Your task to perform on an android device: change the upload size in google photos Image 0: 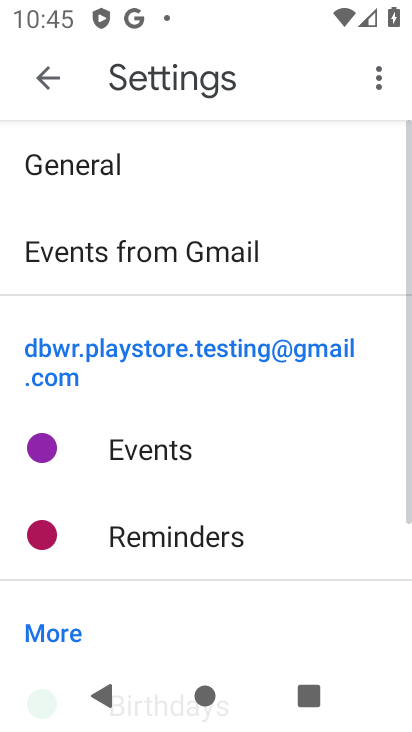
Step 0: press home button
Your task to perform on an android device: change the upload size in google photos Image 1: 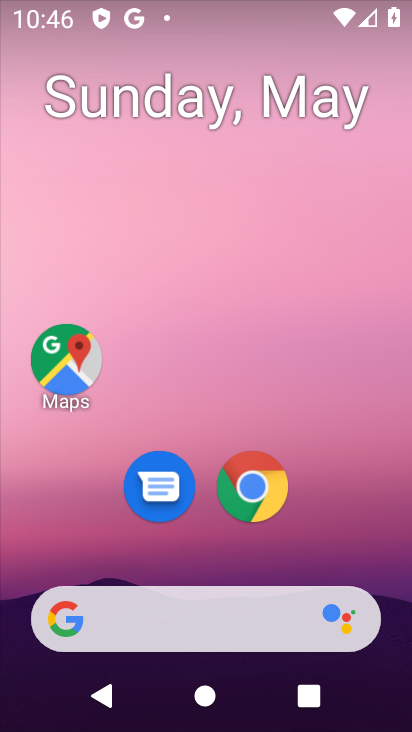
Step 1: drag from (296, 563) to (296, 210)
Your task to perform on an android device: change the upload size in google photos Image 2: 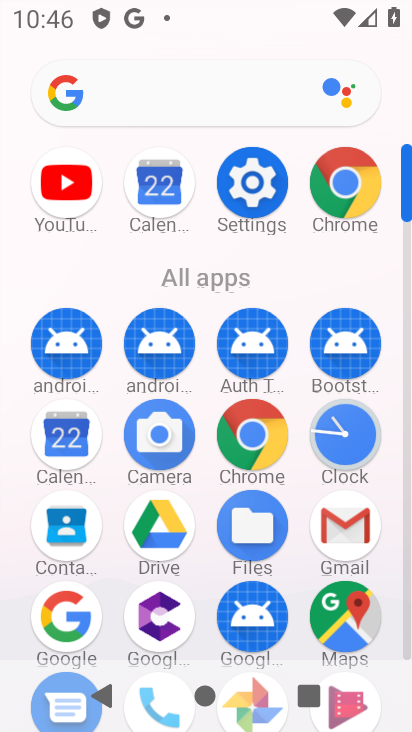
Step 2: drag from (197, 626) to (246, 319)
Your task to perform on an android device: change the upload size in google photos Image 3: 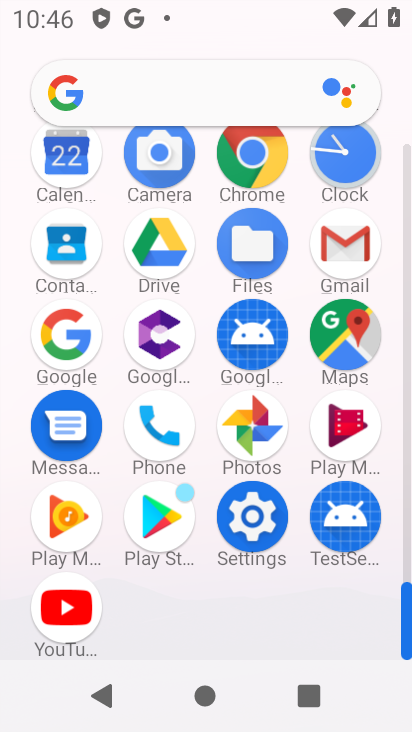
Step 3: click (255, 438)
Your task to perform on an android device: change the upload size in google photos Image 4: 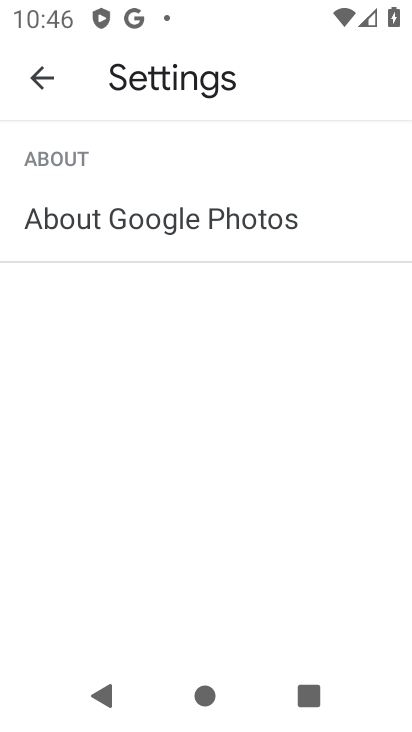
Step 4: click (40, 72)
Your task to perform on an android device: change the upload size in google photos Image 5: 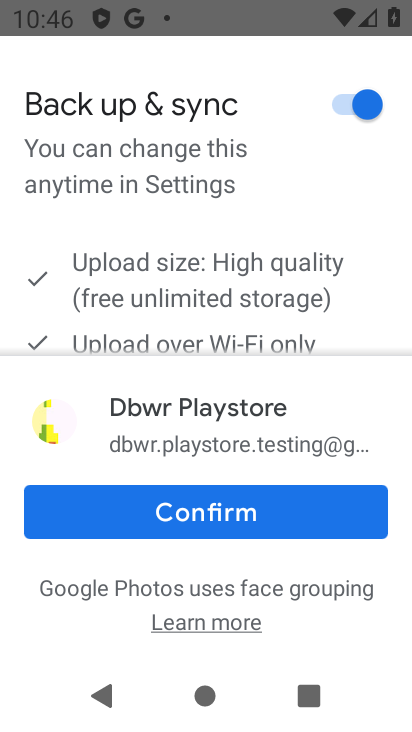
Step 5: click (209, 521)
Your task to perform on an android device: change the upload size in google photos Image 6: 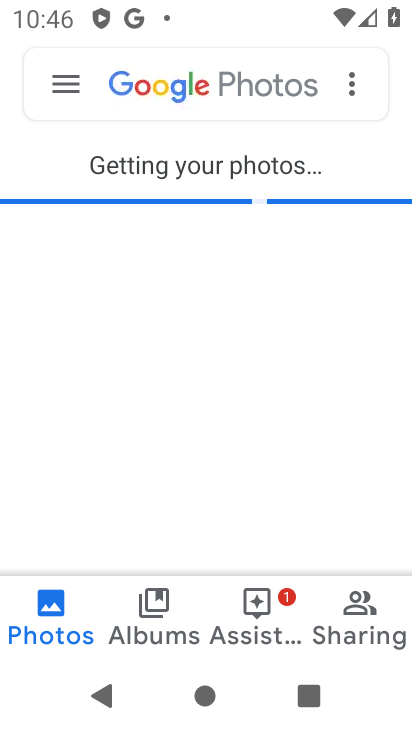
Step 6: click (61, 83)
Your task to perform on an android device: change the upload size in google photos Image 7: 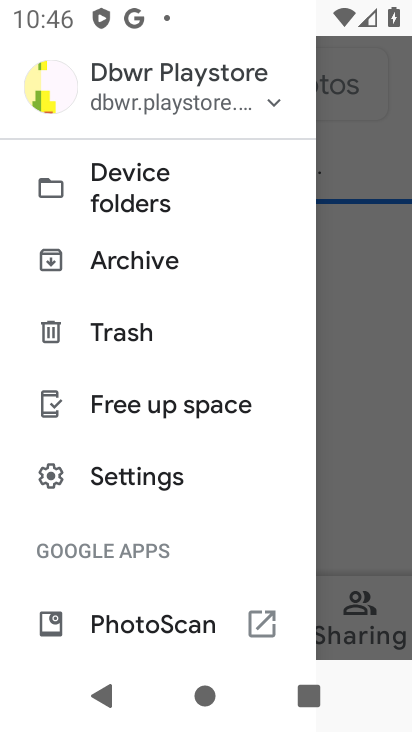
Step 7: click (132, 477)
Your task to perform on an android device: change the upload size in google photos Image 8: 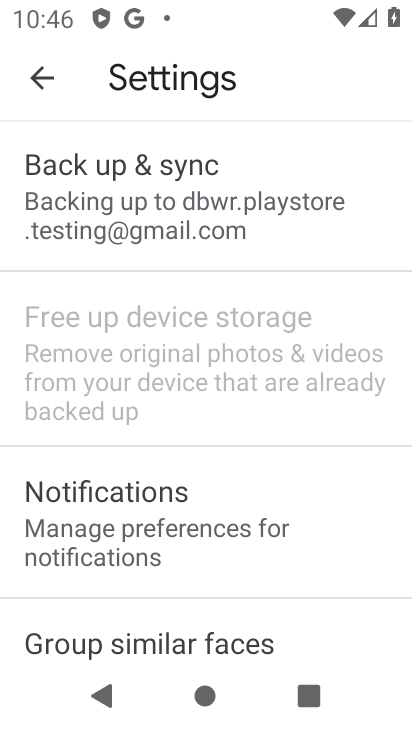
Step 8: click (191, 207)
Your task to perform on an android device: change the upload size in google photos Image 9: 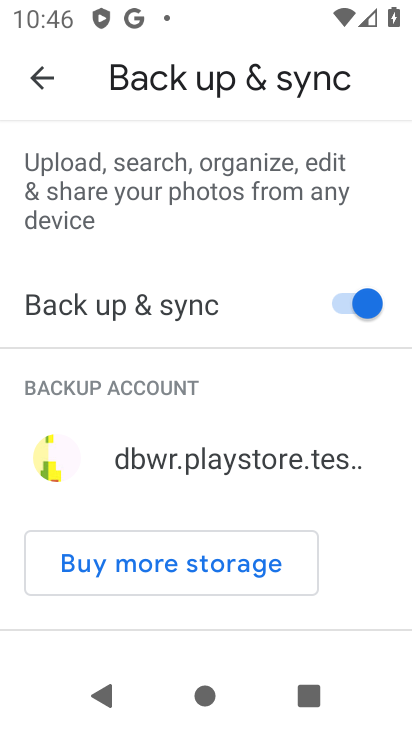
Step 9: drag from (149, 510) to (194, 286)
Your task to perform on an android device: change the upload size in google photos Image 10: 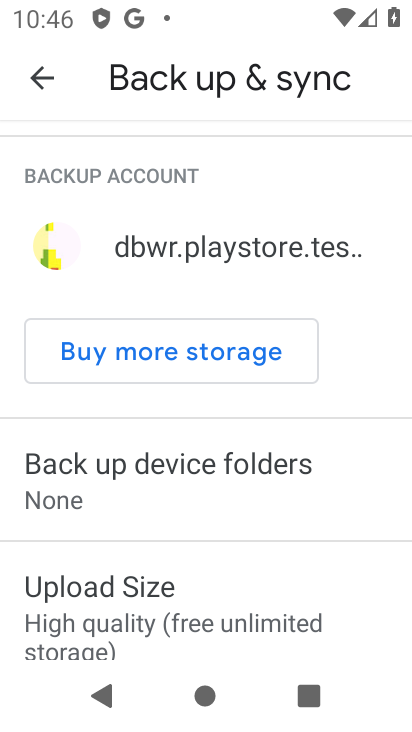
Step 10: click (106, 602)
Your task to perform on an android device: change the upload size in google photos Image 11: 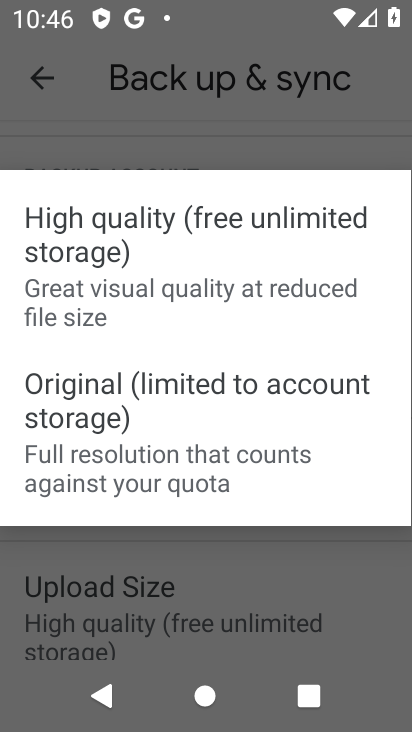
Step 11: click (210, 474)
Your task to perform on an android device: change the upload size in google photos Image 12: 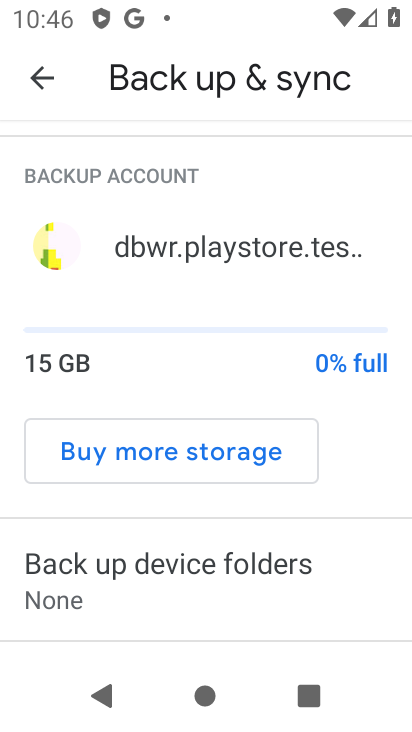
Step 12: task complete